Your task to perform on an android device: toggle airplane mode Image 0: 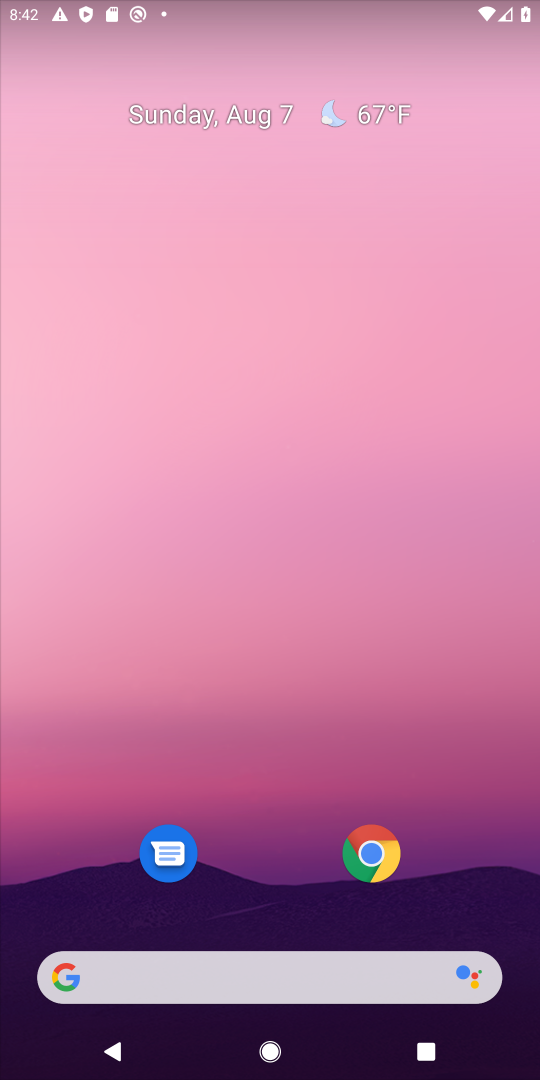
Step 0: drag from (244, 781) to (271, 210)
Your task to perform on an android device: toggle airplane mode Image 1: 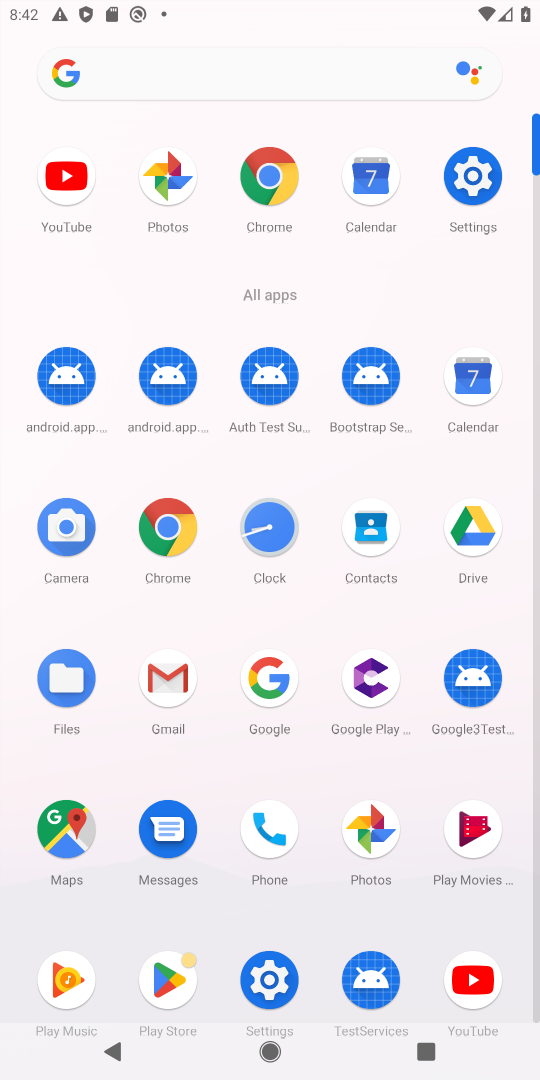
Step 1: click (474, 160)
Your task to perform on an android device: toggle airplane mode Image 2: 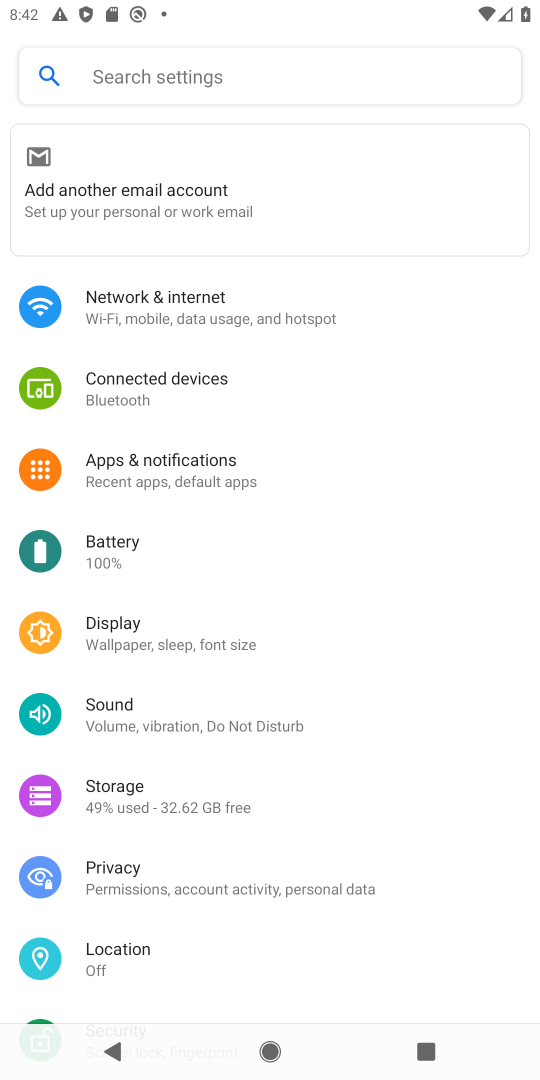
Step 2: click (158, 317)
Your task to perform on an android device: toggle airplane mode Image 3: 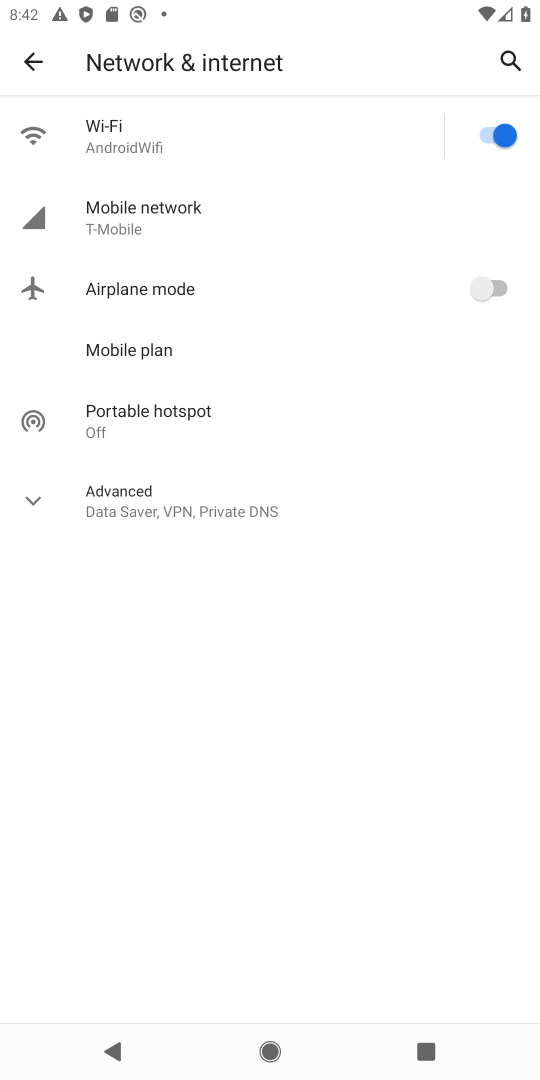
Step 3: click (504, 291)
Your task to perform on an android device: toggle airplane mode Image 4: 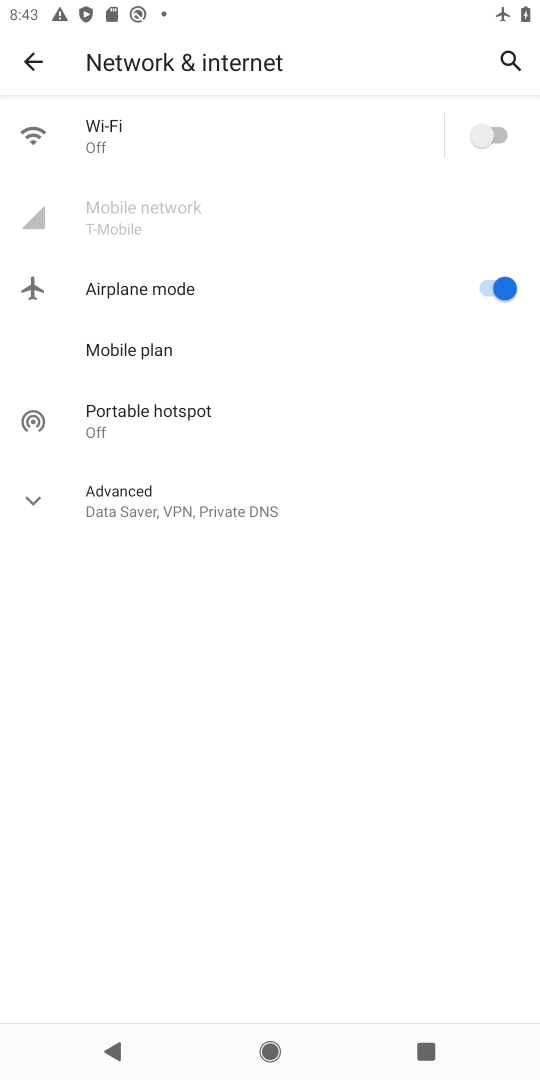
Step 4: task complete